Your task to perform on an android device: turn notification dots on Image 0: 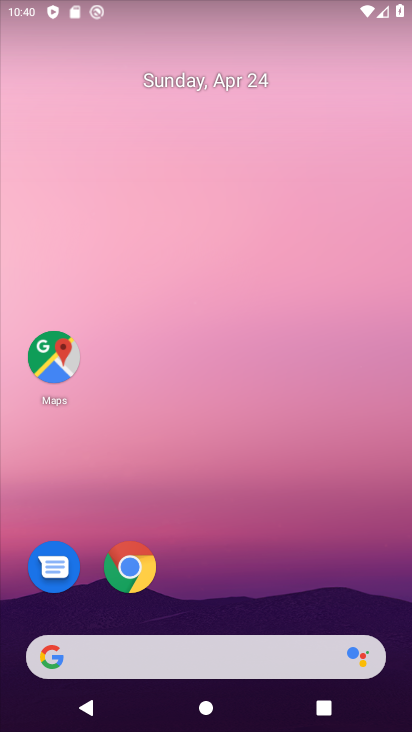
Step 0: drag from (225, 360) to (212, 32)
Your task to perform on an android device: turn notification dots on Image 1: 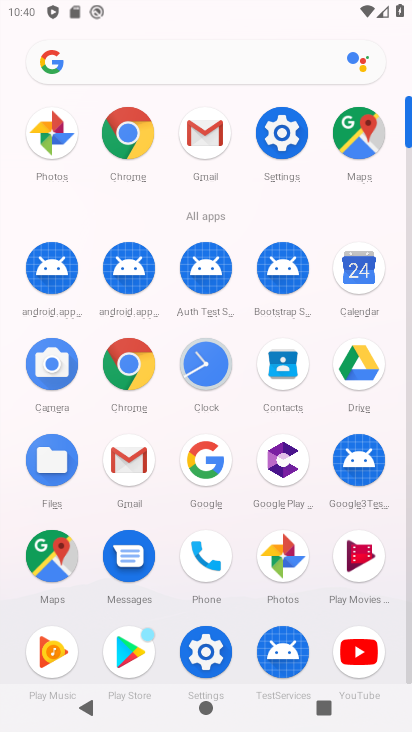
Step 1: click (197, 629)
Your task to perform on an android device: turn notification dots on Image 2: 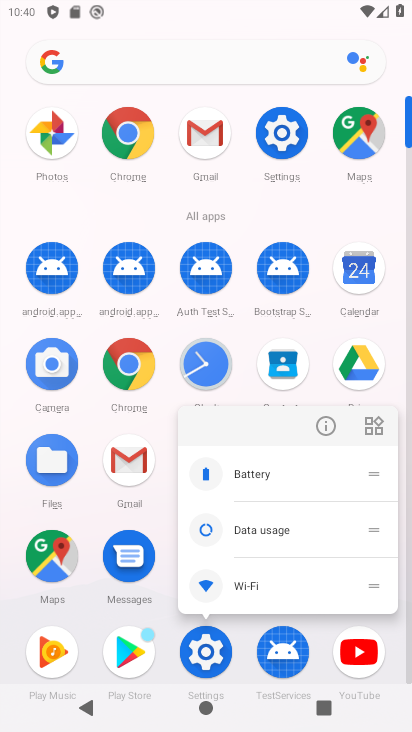
Step 2: click (215, 653)
Your task to perform on an android device: turn notification dots on Image 3: 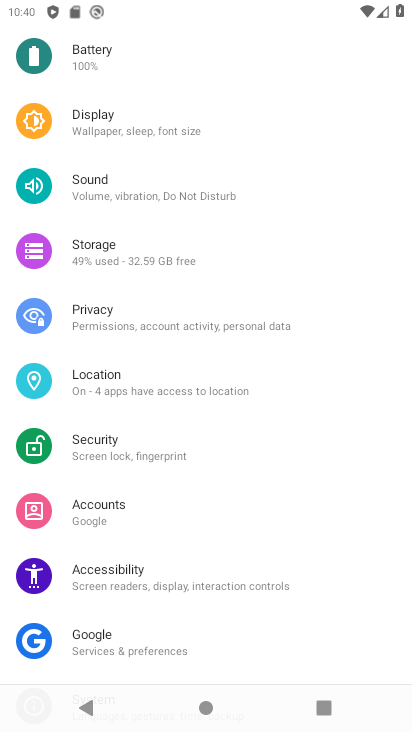
Step 3: drag from (126, 223) to (135, 542)
Your task to perform on an android device: turn notification dots on Image 4: 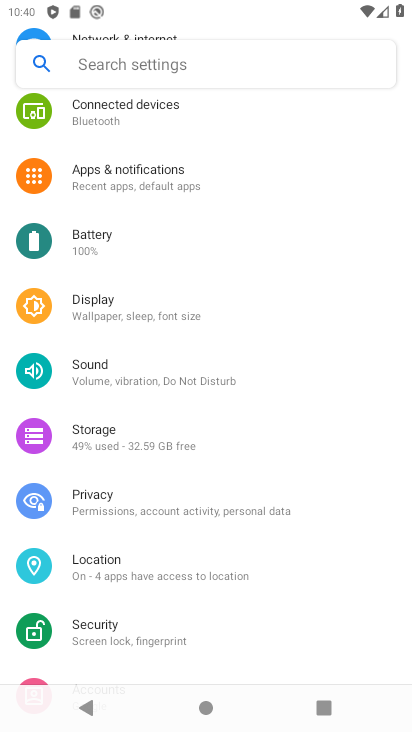
Step 4: click (173, 182)
Your task to perform on an android device: turn notification dots on Image 5: 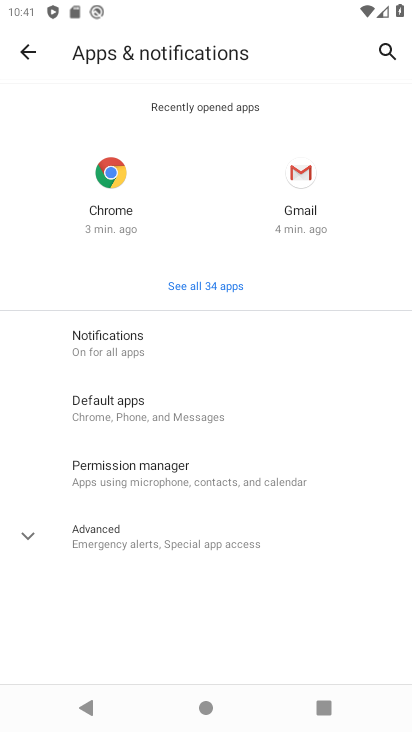
Step 5: click (206, 545)
Your task to perform on an android device: turn notification dots on Image 6: 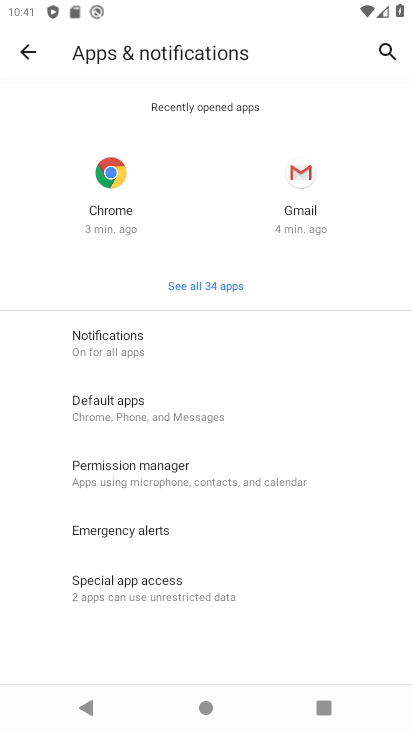
Step 6: drag from (134, 612) to (176, 358)
Your task to perform on an android device: turn notification dots on Image 7: 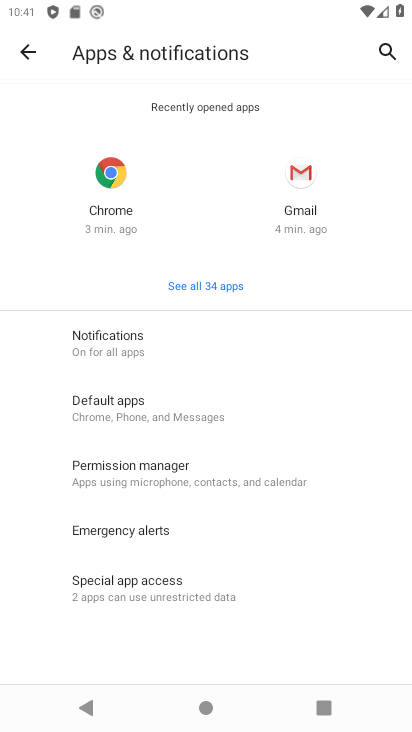
Step 7: click (169, 583)
Your task to perform on an android device: turn notification dots on Image 8: 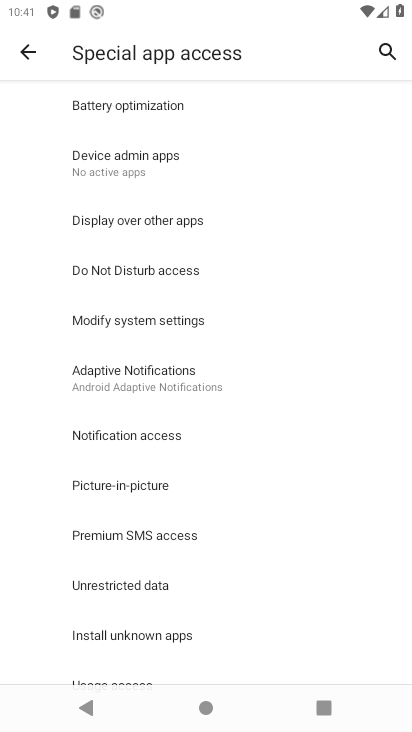
Step 8: click (30, 48)
Your task to perform on an android device: turn notification dots on Image 9: 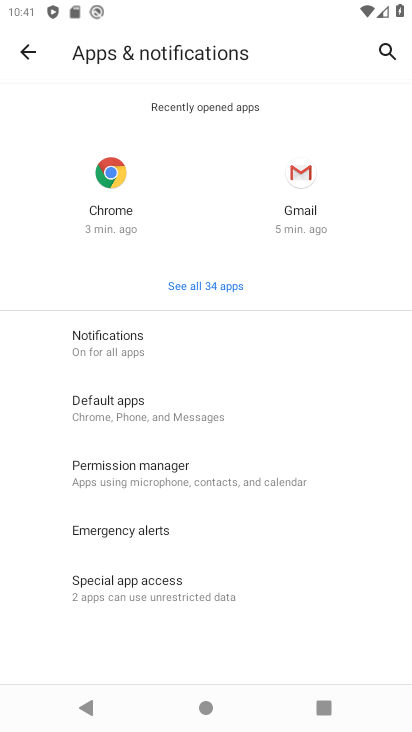
Step 9: click (158, 323)
Your task to perform on an android device: turn notification dots on Image 10: 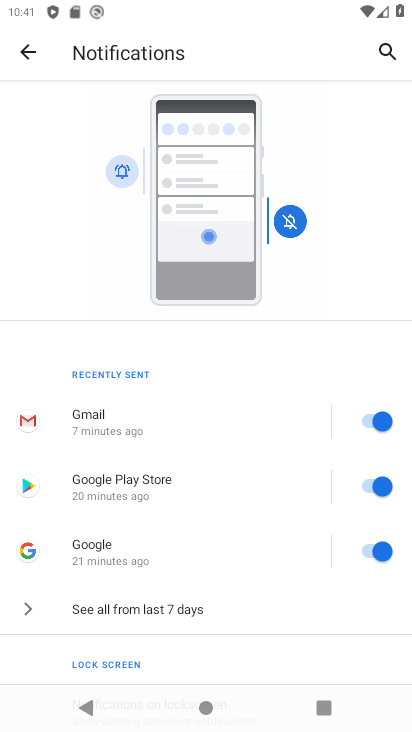
Step 10: drag from (230, 599) to (258, 194)
Your task to perform on an android device: turn notification dots on Image 11: 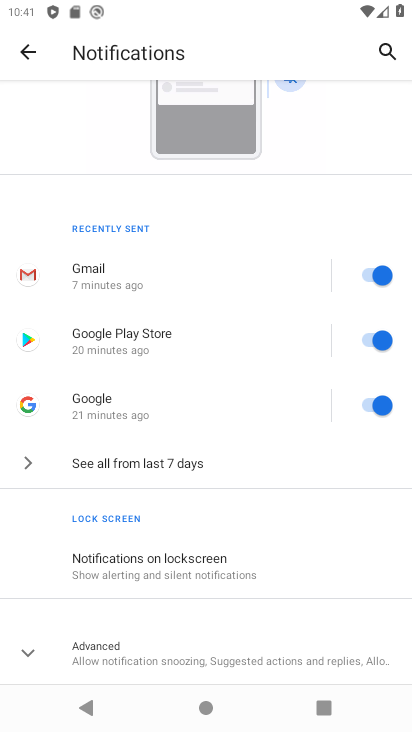
Step 11: click (205, 663)
Your task to perform on an android device: turn notification dots on Image 12: 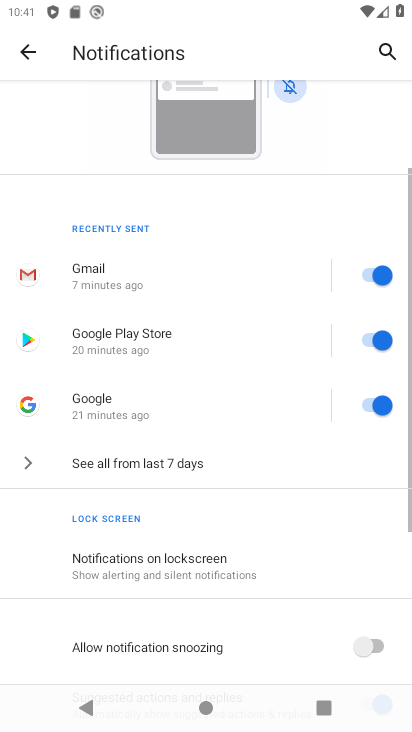
Step 12: task complete